Your task to perform on an android device: delete location history Image 0: 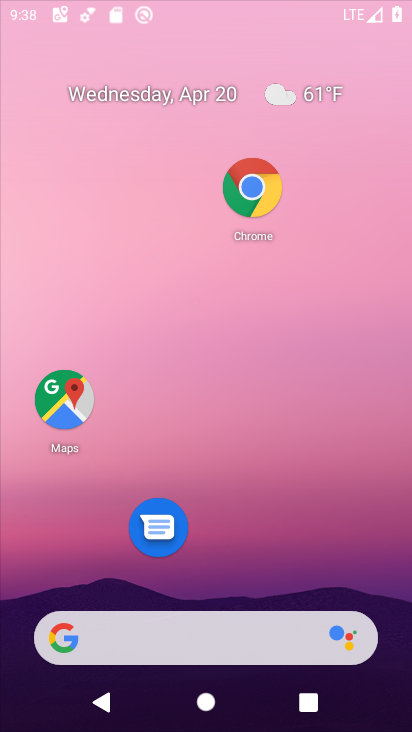
Step 0: drag from (271, 319) to (291, 8)
Your task to perform on an android device: delete location history Image 1: 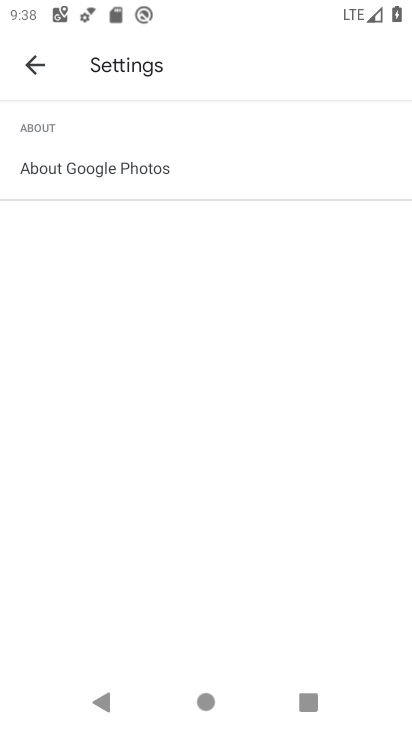
Step 1: press home button
Your task to perform on an android device: delete location history Image 2: 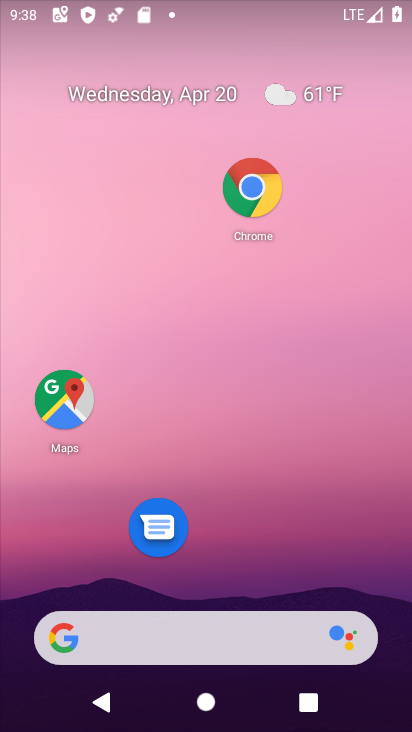
Step 2: click (59, 402)
Your task to perform on an android device: delete location history Image 3: 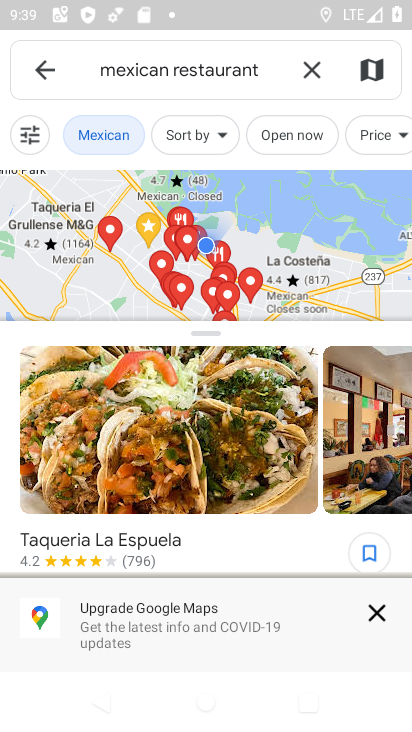
Step 3: click (50, 72)
Your task to perform on an android device: delete location history Image 4: 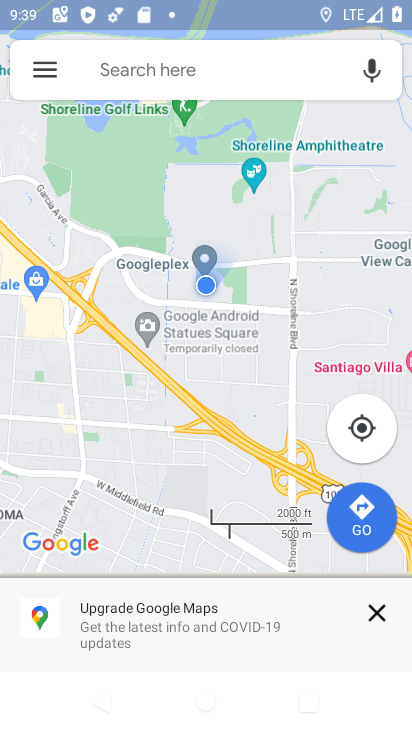
Step 4: click (46, 69)
Your task to perform on an android device: delete location history Image 5: 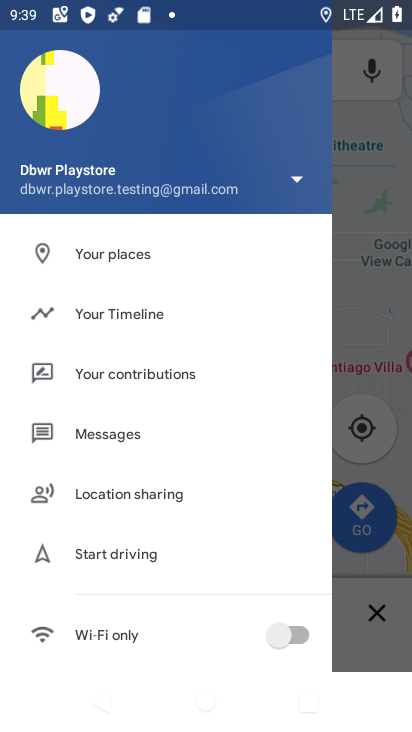
Step 5: click (131, 319)
Your task to perform on an android device: delete location history Image 6: 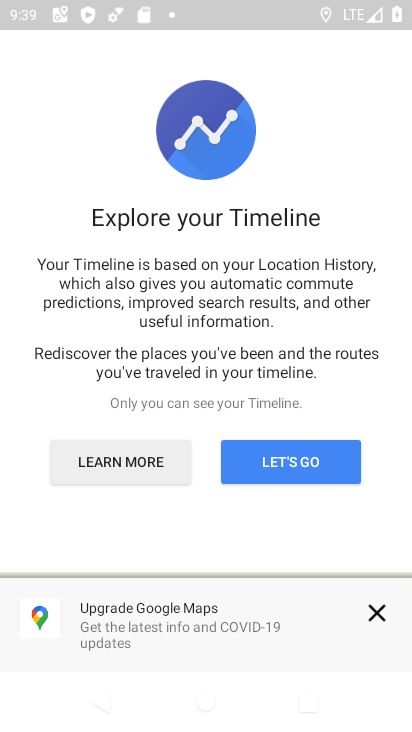
Step 6: click (378, 610)
Your task to perform on an android device: delete location history Image 7: 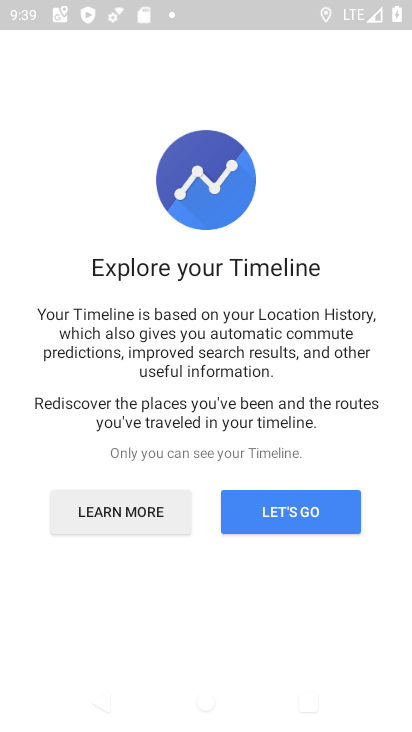
Step 7: click (282, 504)
Your task to perform on an android device: delete location history Image 8: 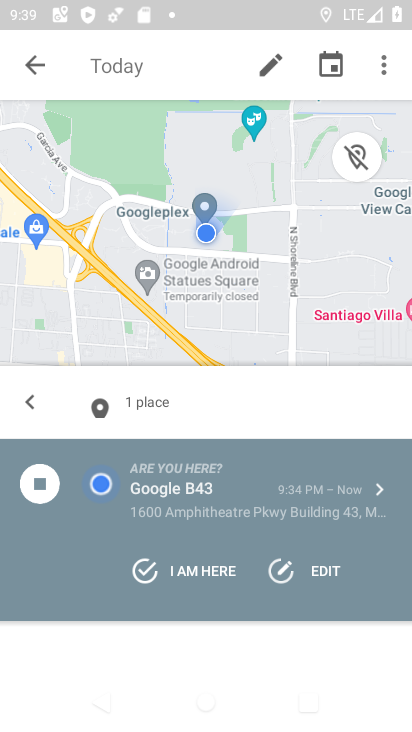
Step 8: click (384, 63)
Your task to perform on an android device: delete location history Image 9: 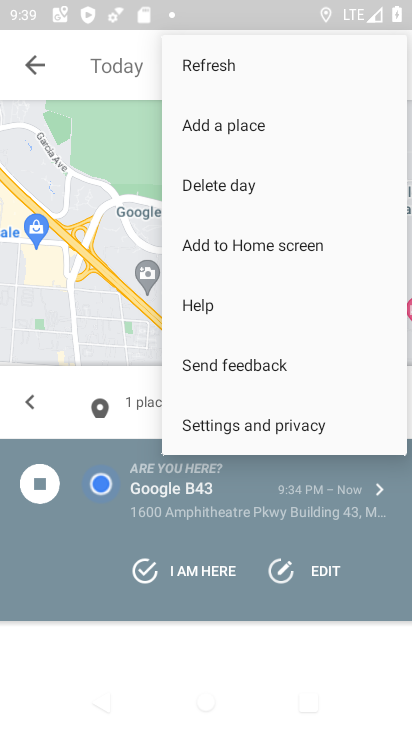
Step 9: click (250, 421)
Your task to perform on an android device: delete location history Image 10: 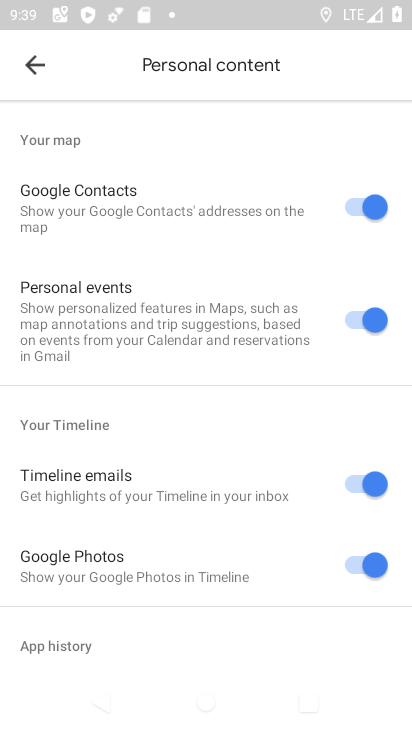
Step 10: drag from (230, 457) to (236, 191)
Your task to perform on an android device: delete location history Image 11: 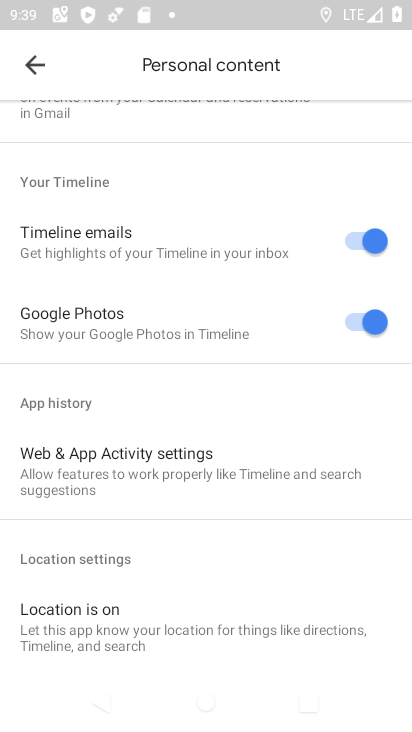
Step 11: drag from (202, 517) to (203, 269)
Your task to perform on an android device: delete location history Image 12: 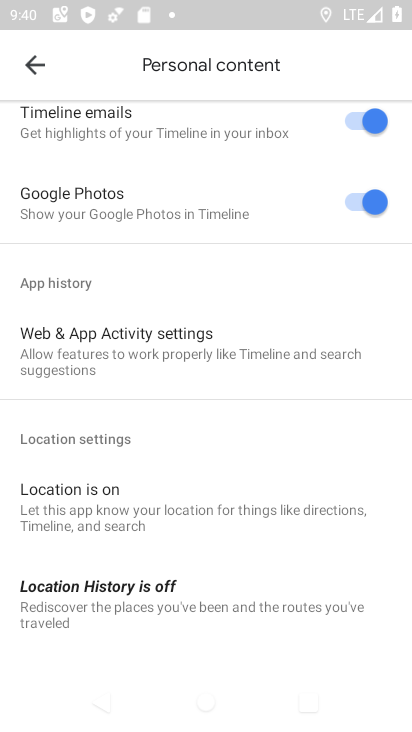
Step 12: drag from (209, 452) to (225, 172)
Your task to perform on an android device: delete location history Image 13: 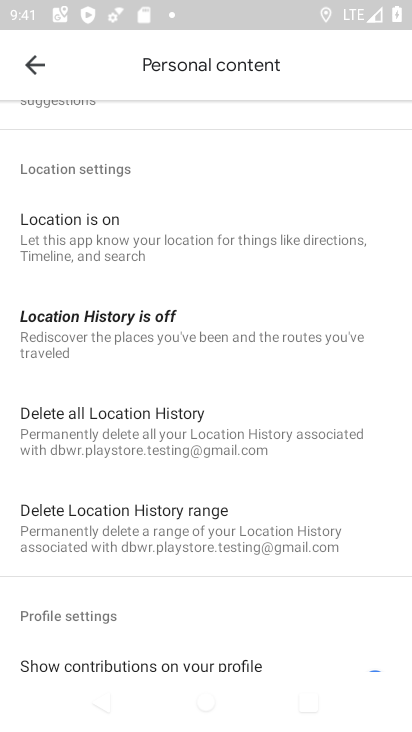
Step 13: click (117, 408)
Your task to perform on an android device: delete location history Image 14: 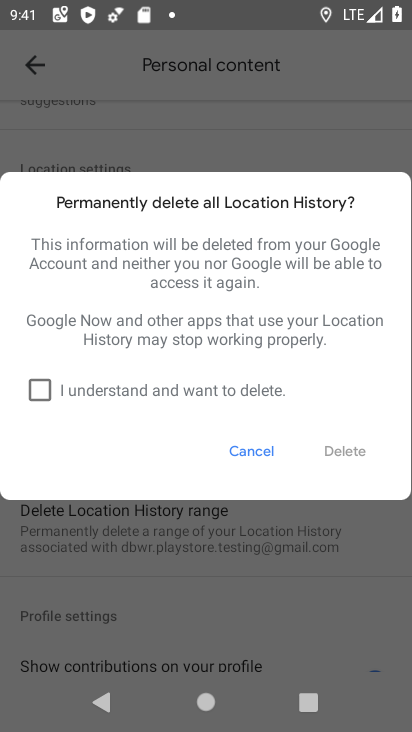
Step 14: click (34, 395)
Your task to perform on an android device: delete location history Image 15: 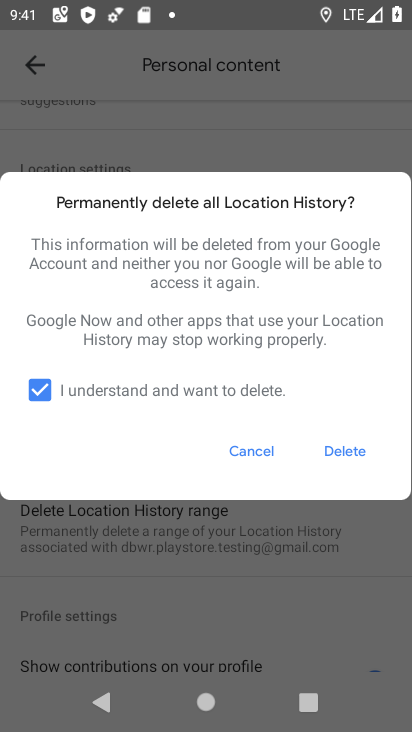
Step 15: click (340, 447)
Your task to perform on an android device: delete location history Image 16: 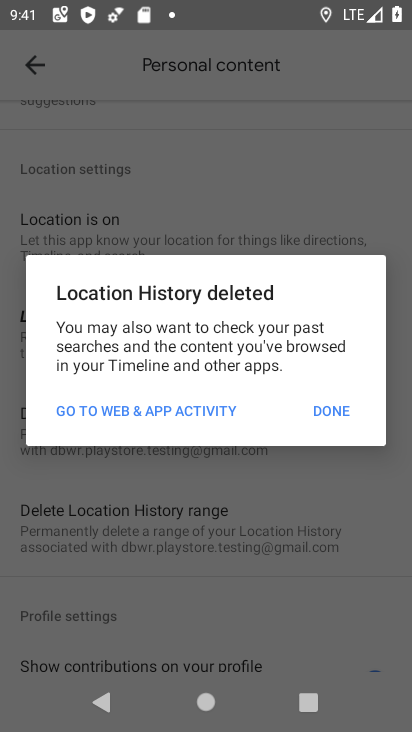
Step 16: click (331, 412)
Your task to perform on an android device: delete location history Image 17: 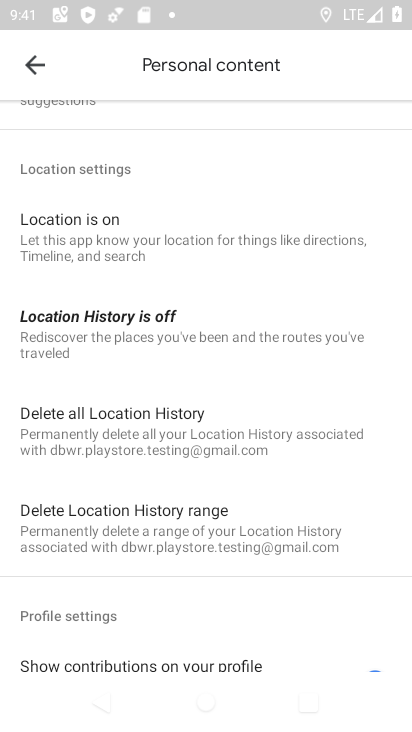
Step 17: task complete